Your task to perform on an android device: Show me recent news Image 0: 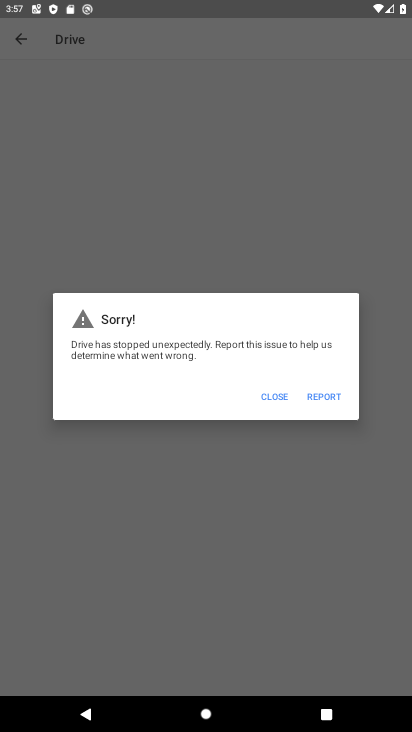
Step 0: press back button
Your task to perform on an android device: Show me recent news Image 1: 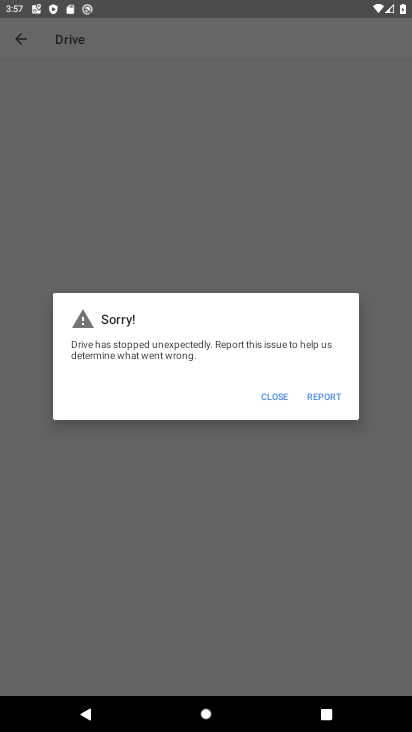
Step 1: press home button
Your task to perform on an android device: Show me recent news Image 2: 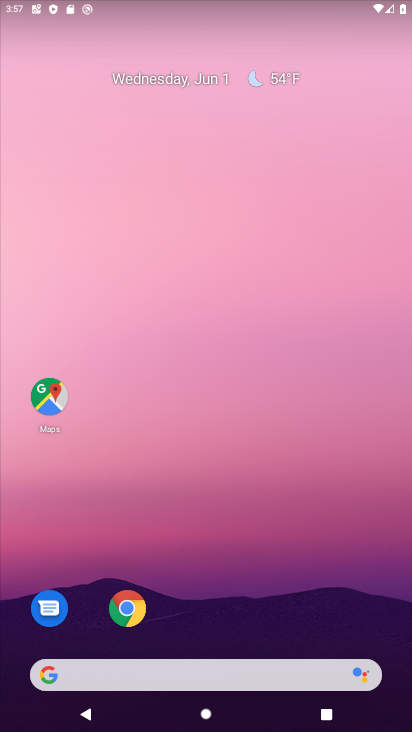
Step 2: click (133, 679)
Your task to perform on an android device: Show me recent news Image 3: 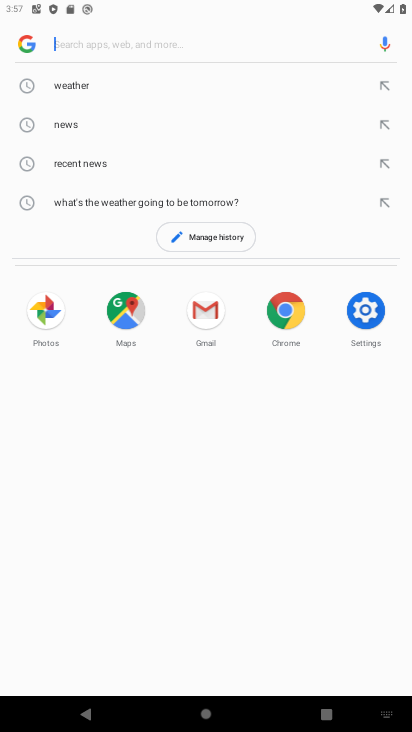
Step 3: click (96, 169)
Your task to perform on an android device: Show me recent news Image 4: 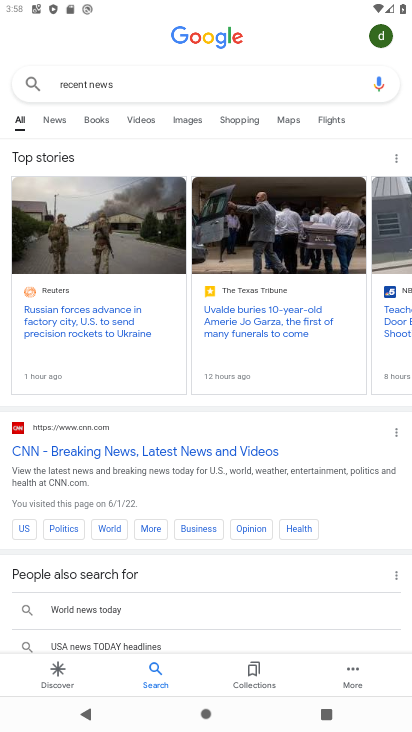
Step 4: task complete